Your task to perform on an android device: uninstall "ColorNote Notepad Notes" Image 0: 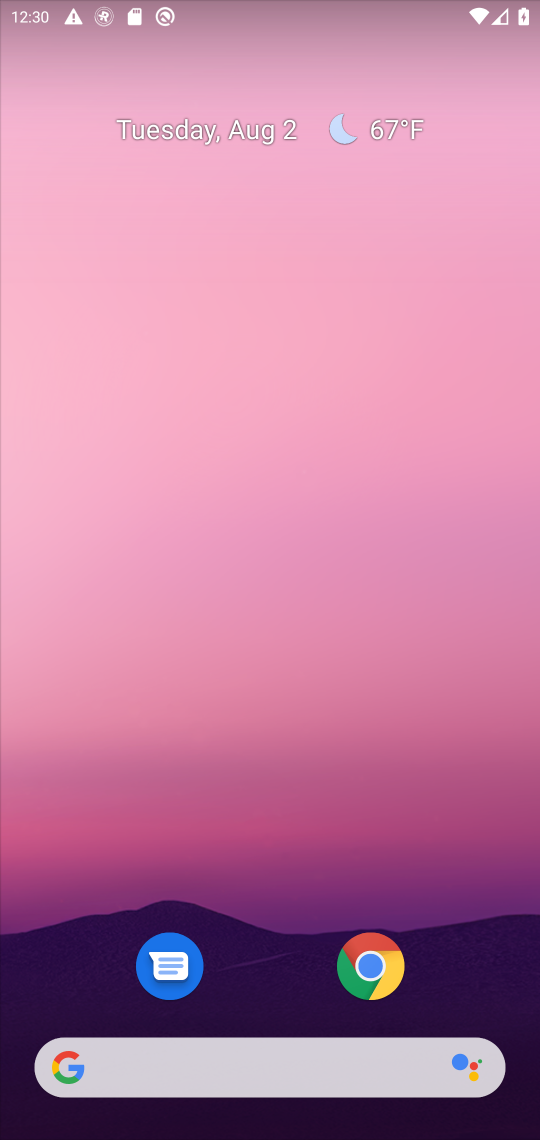
Step 0: drag from (453, 737) to (454, 170)
Your task to perform on an android device: uninstall "ColorNote Notepad Notes" Image 1: 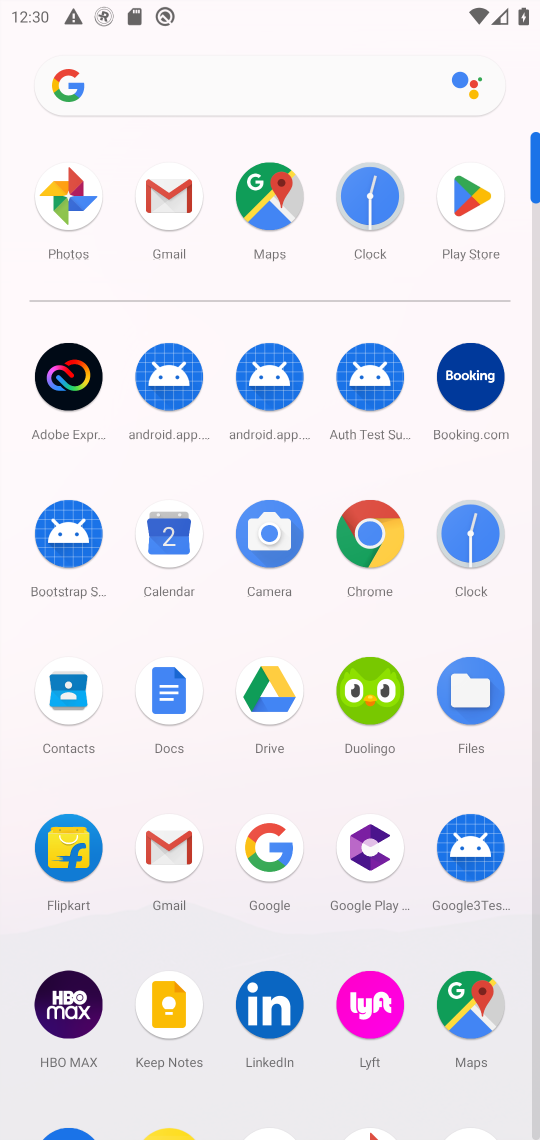
Step 1: click (470, 189)
Your task to perform on an android device: uninstall "ColorNote Notepad Notes" Image 2: 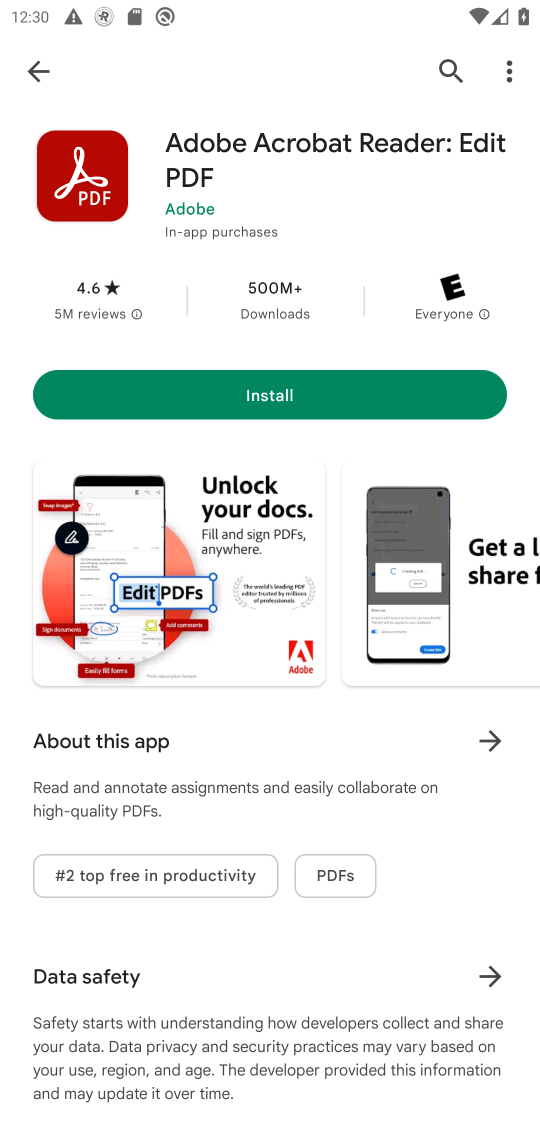
Step 2: click (450, 68)
Your task to perform on an android device: uninstall "ColorNote Notepad Notes" Image 3: 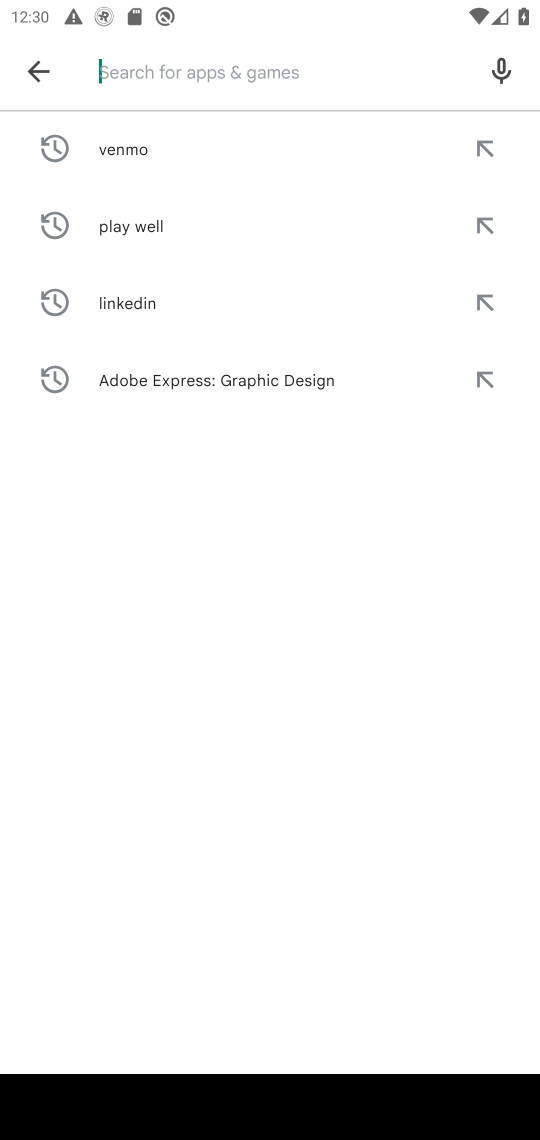
Step 3: click (341, 74)
Your task to perform on an android device: uninstall "ColorNote Notepad Notes" Image 4: 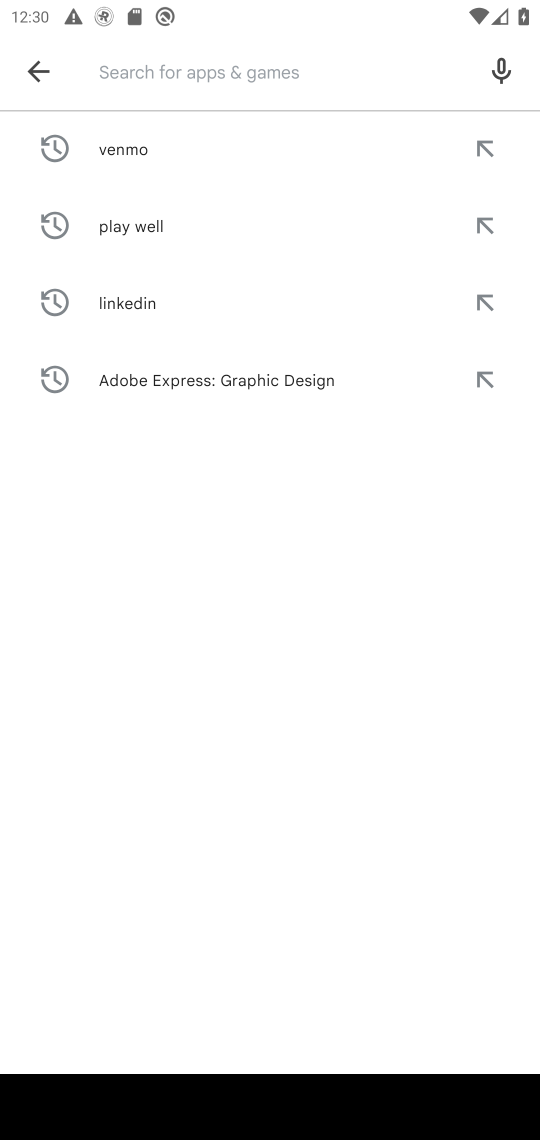
Step 4: type "ColorNote Notepad Notes"
Your task to perform on an android device: uninstall "ColorNote Notepad Notes" Image 5: 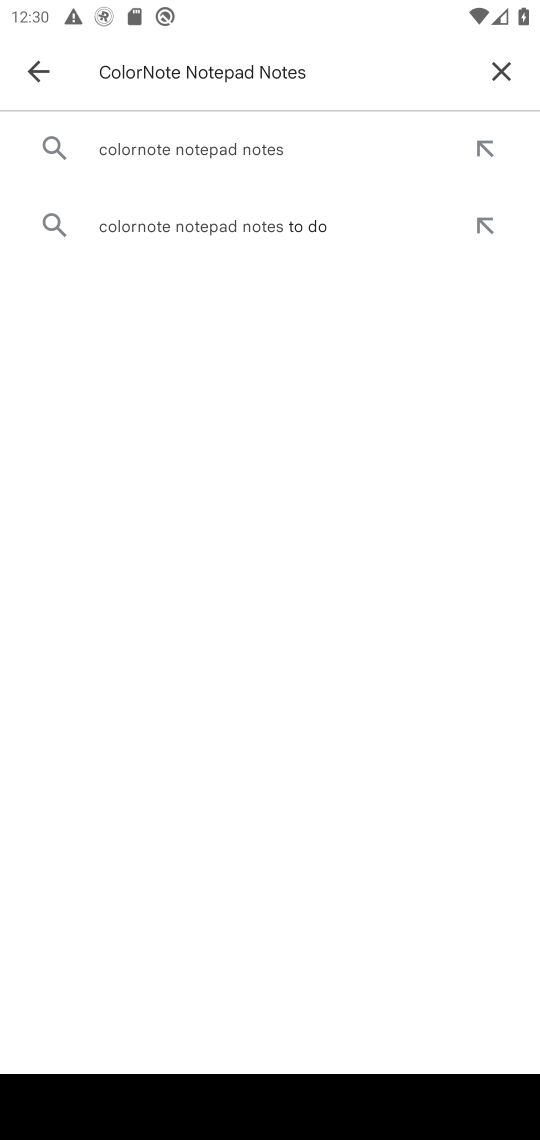
Step 5: click (279, 141)
Your task to perform on an android device: uninstall "ColorNote Notepad Notes" Image 6: 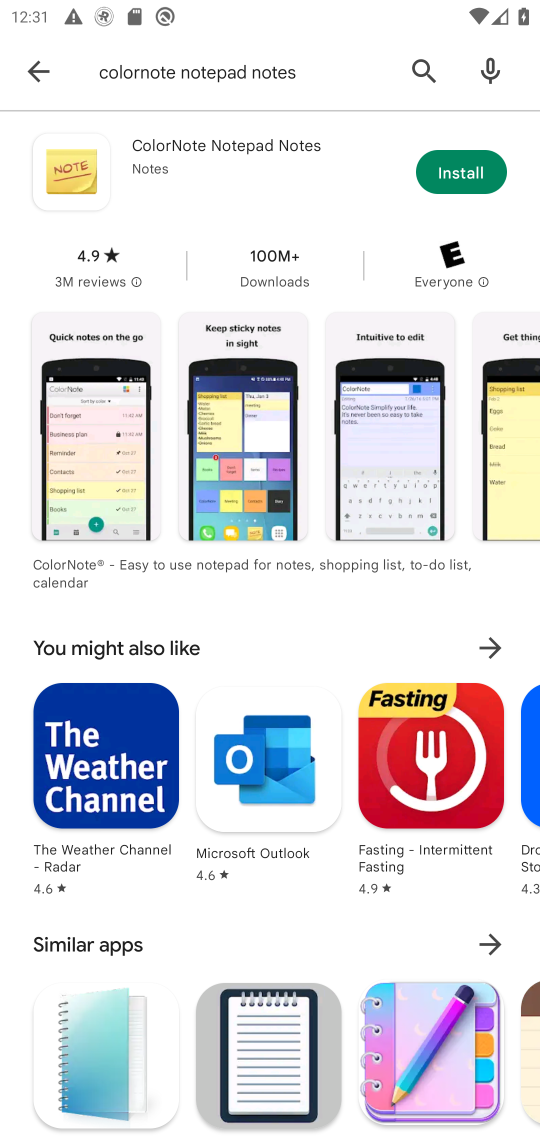
Step 6: task complete